Your task to perform on an android device: find snoozed emails in the gmail app Image 0: 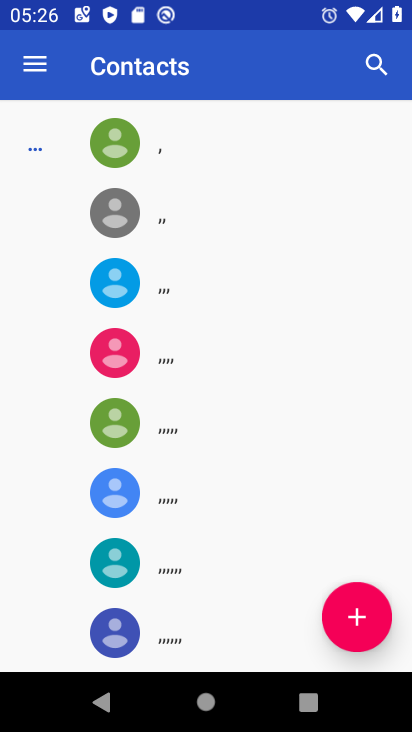
Step 0: press home button
Your task to perform on an android device: find snoozed emails in the gmail app Image 1: 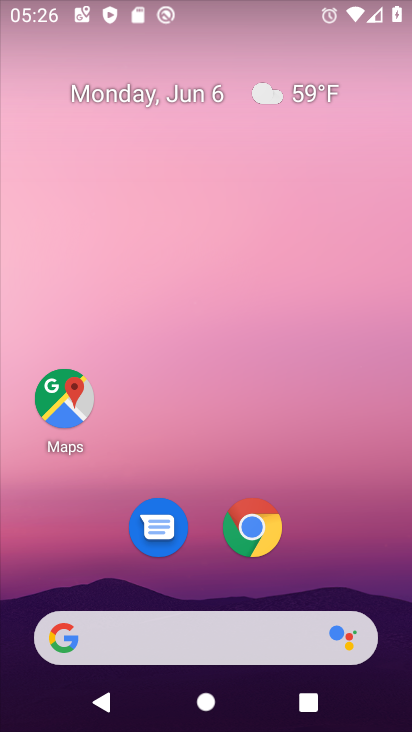
Step 1: drag from (402, 696) to (408, 115)
Your task to perform on an android device: find snoozed emails in the gmail app Image 2: 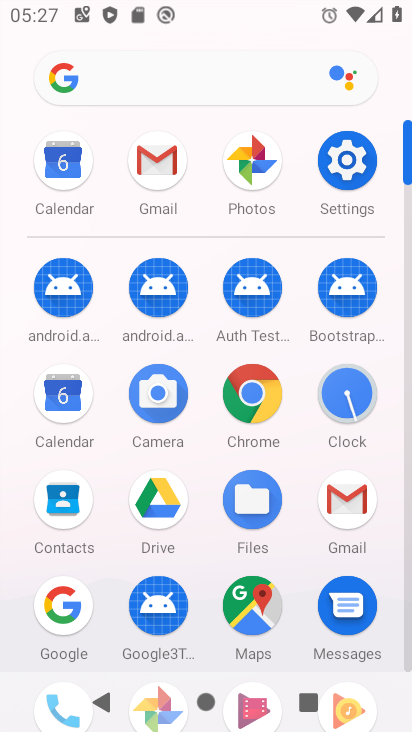
Step 2: click (163, 173)
Your task to perform on an android device: find snoozed emails in the gmail app Image 3: 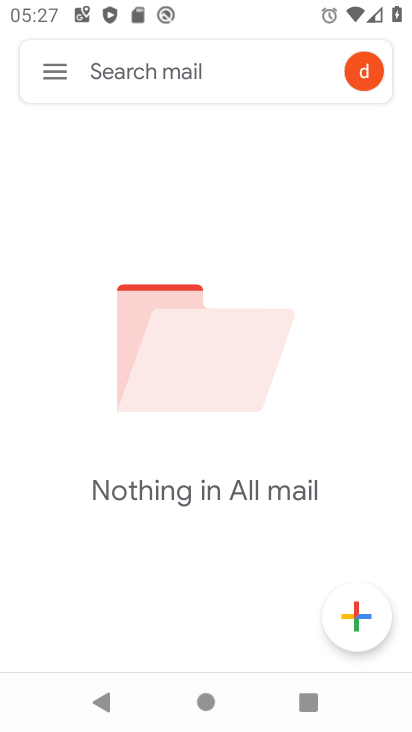
Step 3: click (59, 62)
Your task to perform on an android device: find snoozed emails in the gmail app Image 4: 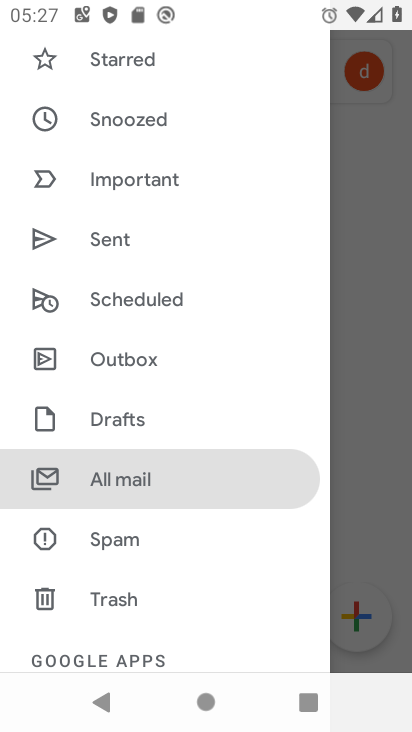
Step 4: click (111, 115)
Your task to perform on an android device: find snoozed emails in the gmail app Image 5: 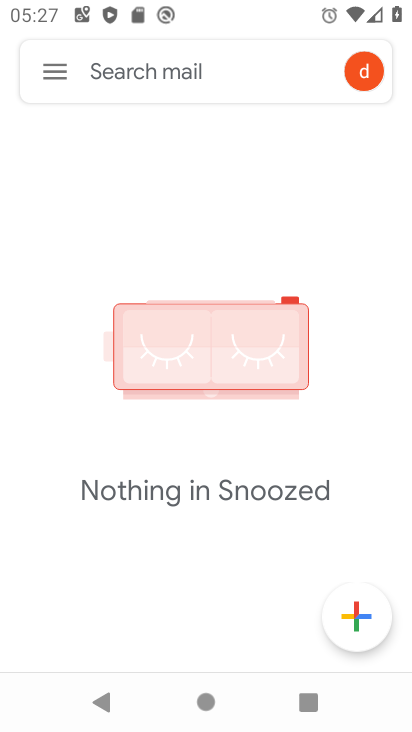
Step 5: task complete